Your task to perform on an android device: remove spam from my inbox in the gmail app Image 0: 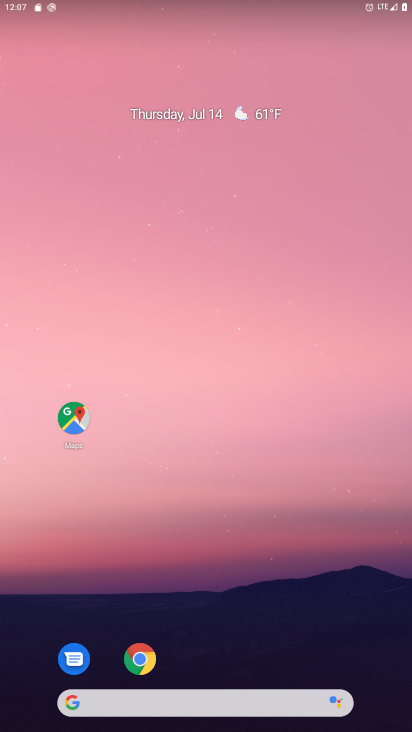
Step 0: press home button
Your task to perform on an android device: remove spam from my inbox in the gmail app Image 1: 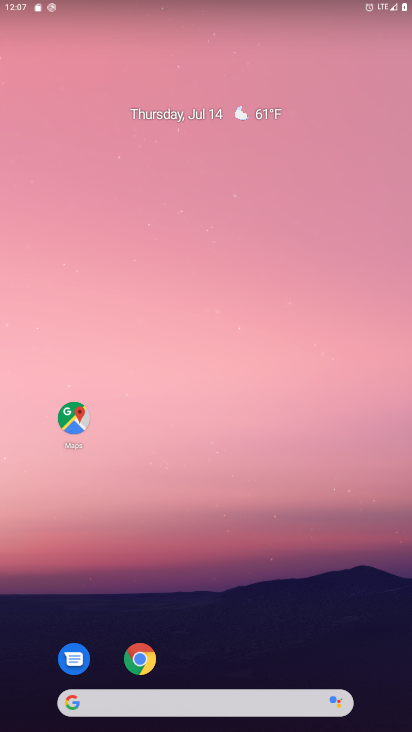
Step 1: drag from (229, 671) to (258, 174)
Your task to perform on an android device: remove spam from my inbox in the gmail app Image 2: 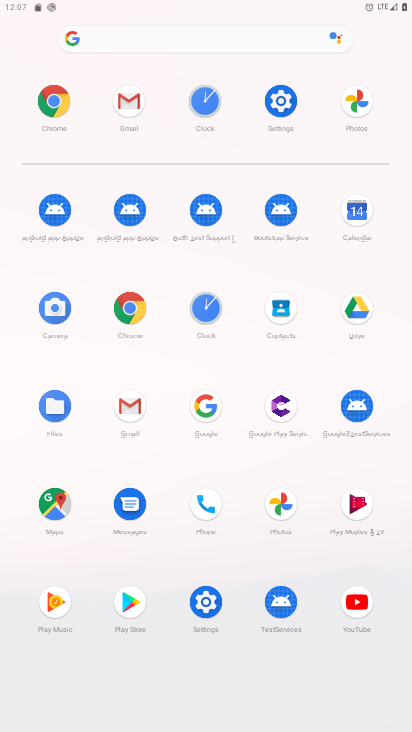
Step 2: click (130, 401)
Your task to perform on an android device: remove spam from my inbox in the gmail app Image 3: 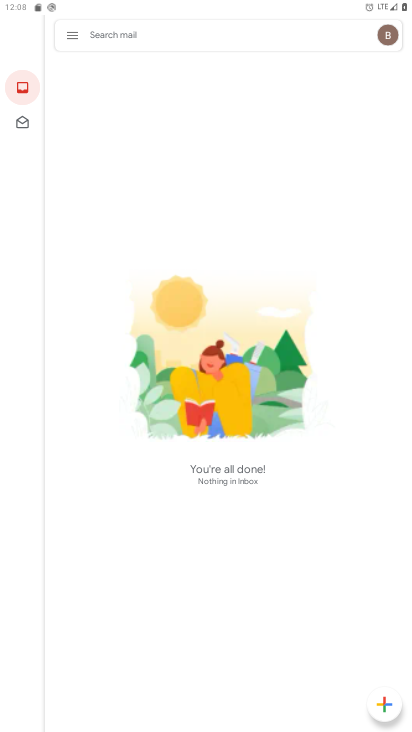
Step 3: click (70, 27)
Your task to perform on an android device: remove spam from my inbox in the gmail app Image 4: 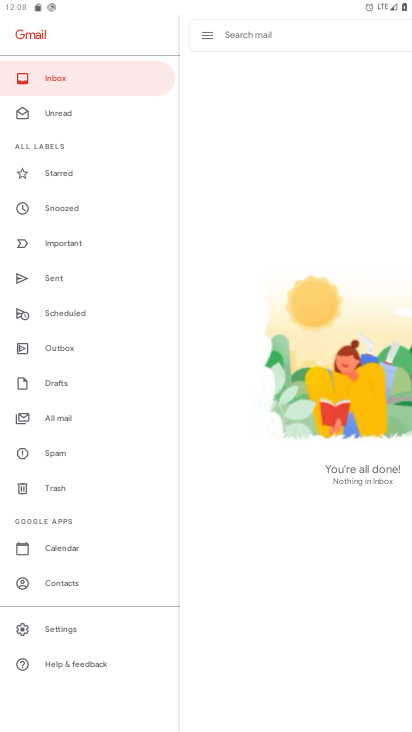
Step 4: click (58, 443)
Your task to perform on an android device: remove spam from my inbox in the gmail app Image 5: 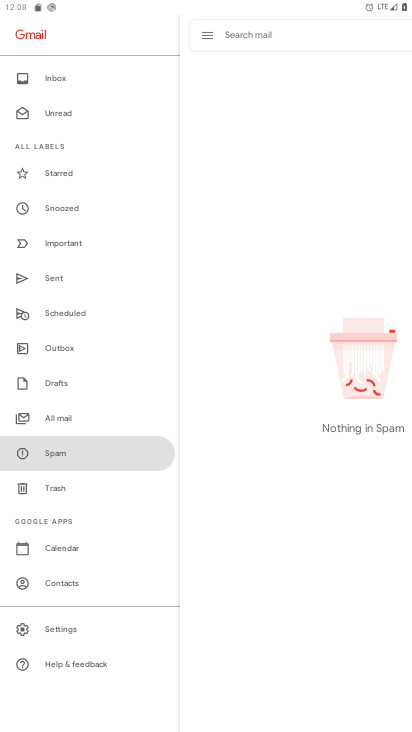
Step 5: task complete